Your task to perform on an android device: What's on my calendar tomorrow? Image 0: 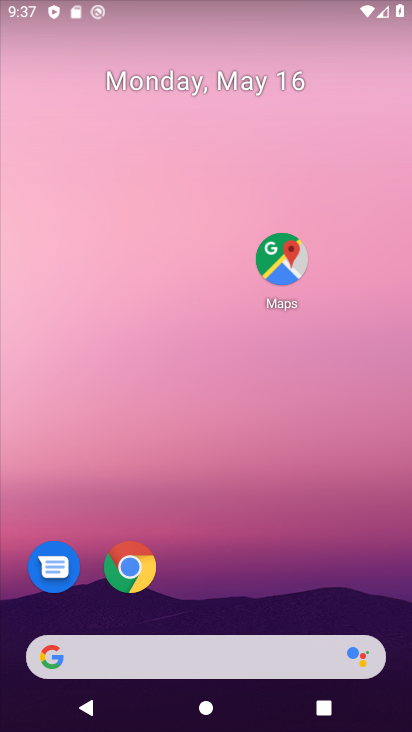
Step 0: drag from (238, 582) to (230, 79)
Your task to perform on an android device: What's on my calendar tomorrow? Image 1: 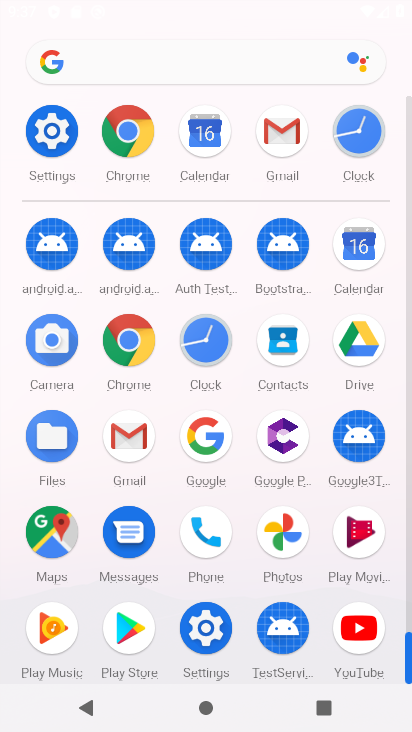
Step 1: click (362, 247)
Your task to perform on an android device: What's on my calendar tomorrow? Image 2: 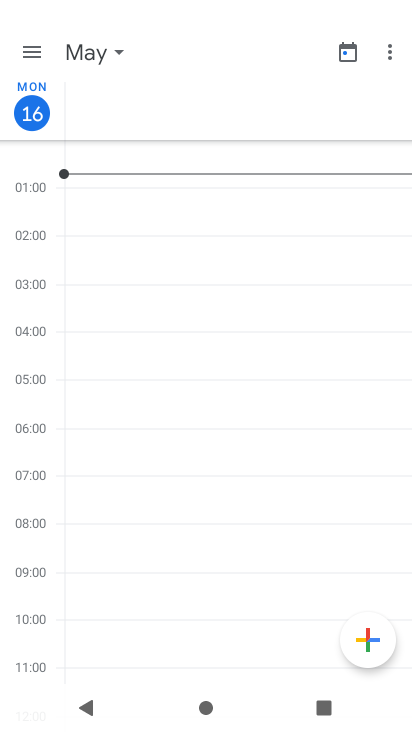
Step 2: click (112, 71)
Your task to perform on an android device: What's on my calendar tomorrow? Image 3: 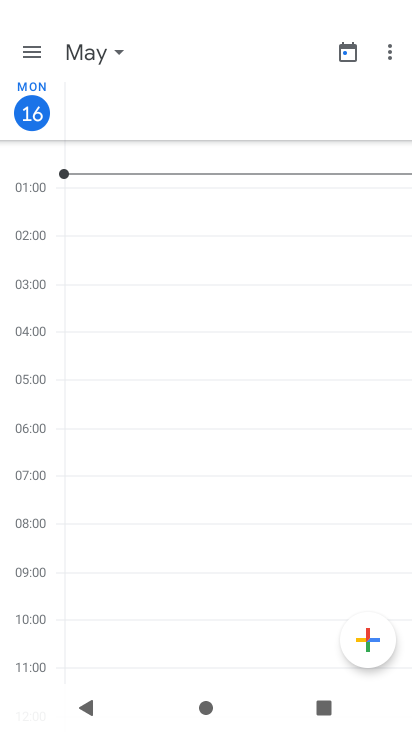
Step 3: click (112, 50)
Your task to perform on an android device: What's on my calendar tomorrow? Image 4: 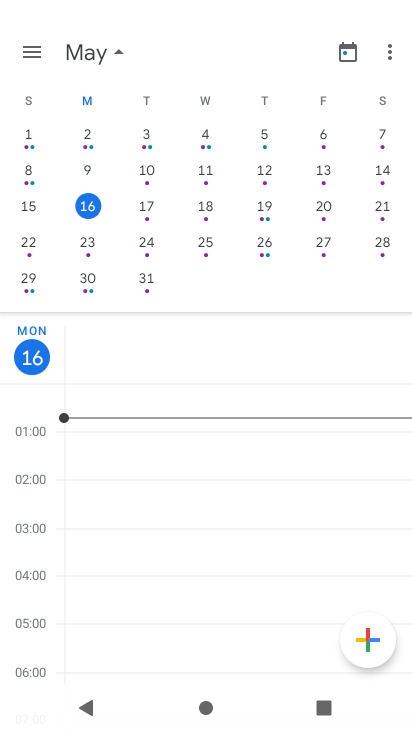
Step 4: task complete